Your task to perform on an android device: open sync settings in chrome Image 0: 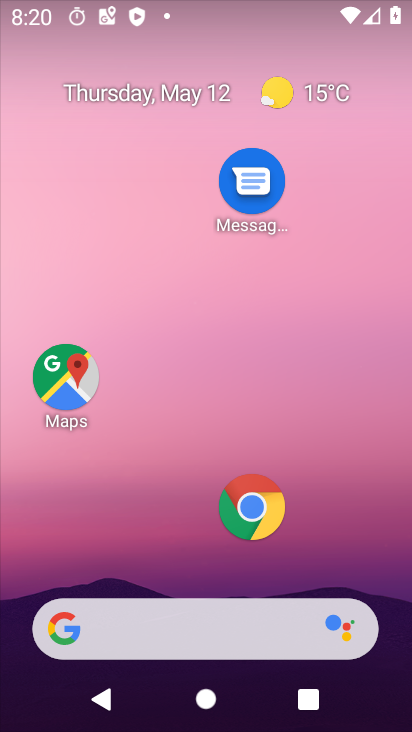
Step 0: click (249, 501)
Your task to perform on an android device: open sync settings in chrome Image 1: 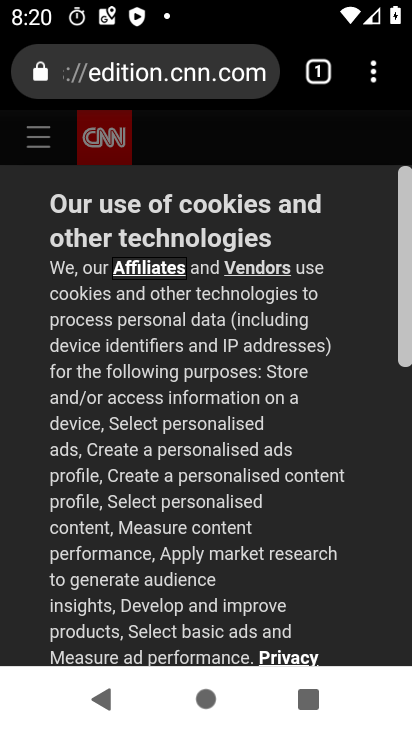
Step 1: click (375, 80)
Your task to perform on an android device: open sync settings in chrome Image 2: 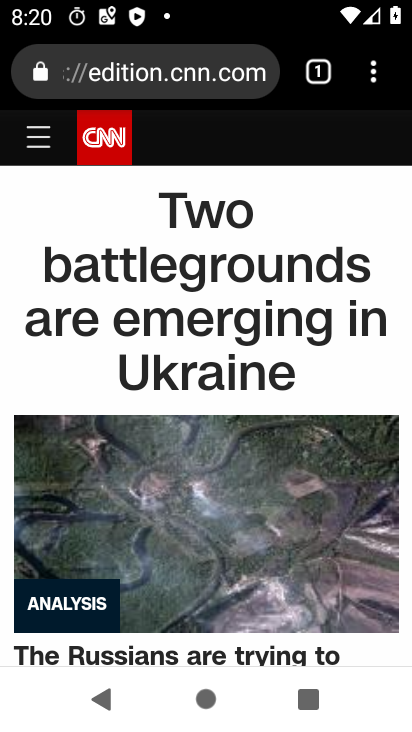
Step 2: click (375, 80)
Your task to perform on an android device: open sync settings in chrome Image 3: 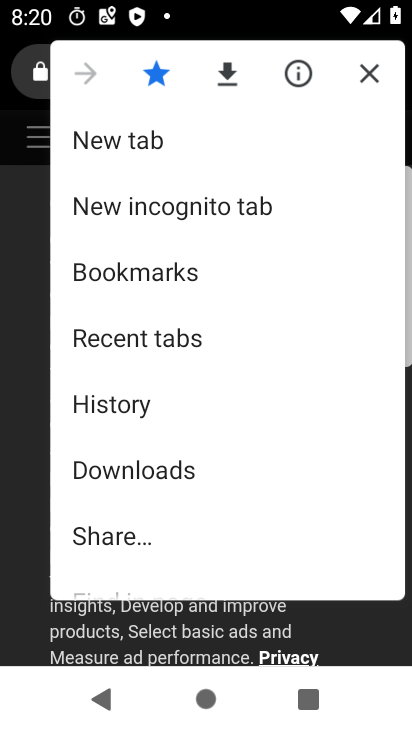
Step 3: drag from (223, 500) to (257, 236)
Your task to perform on an android device: open sync settings in chrome Image 4: 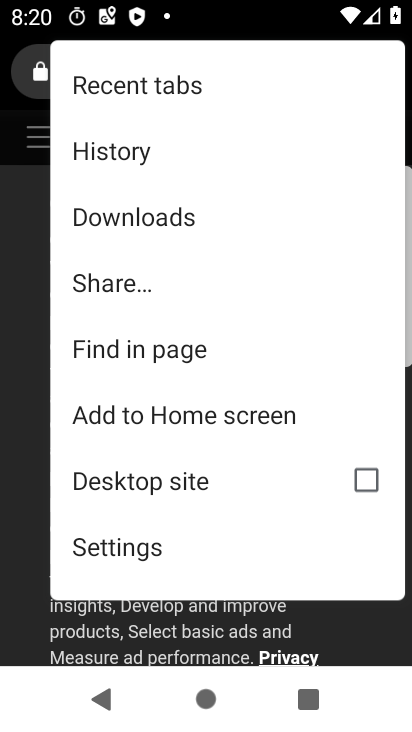
Step 4: click (223, 549)
Your task to perform on an android device: open sync settings in chrome Image 5: 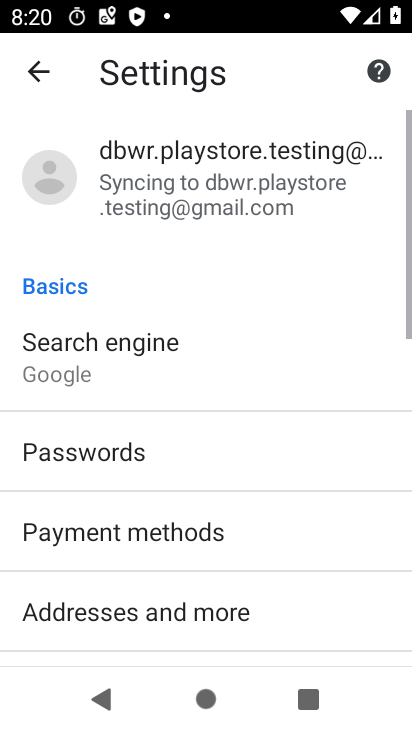
Step 5: drag from (154, 590) to (188, 370)
Your task to perform on an android device: open sync settings in chrome Image 6: 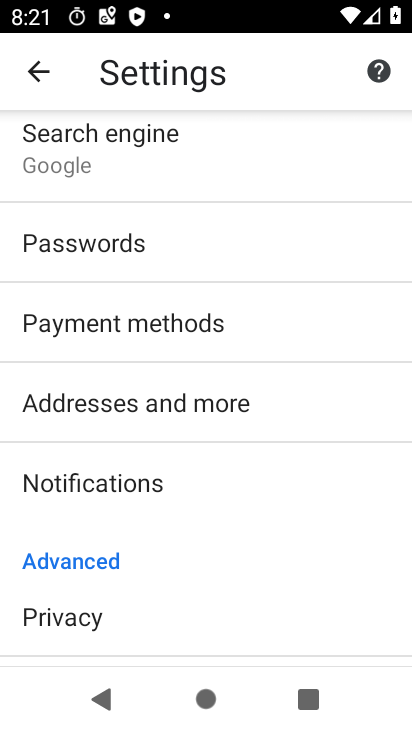
Step 6: drag from (168, 566) to (175, 712)
Your task to perform on an android device: open sync settings in chrome Image 7: 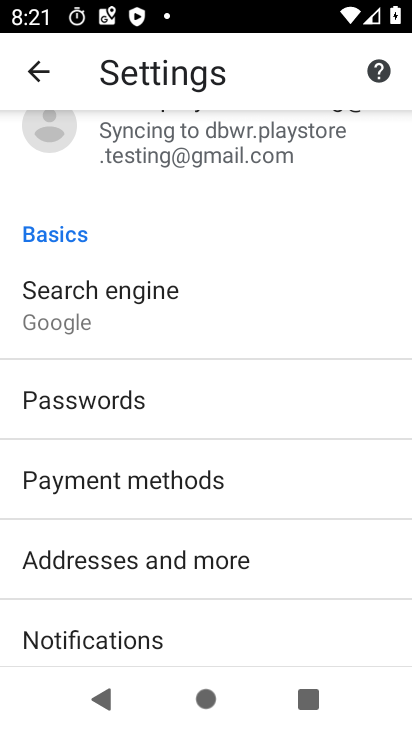
Step 7: click (230, 137)
Your task to perform on an android device: open sync settings in chrome Image 8: 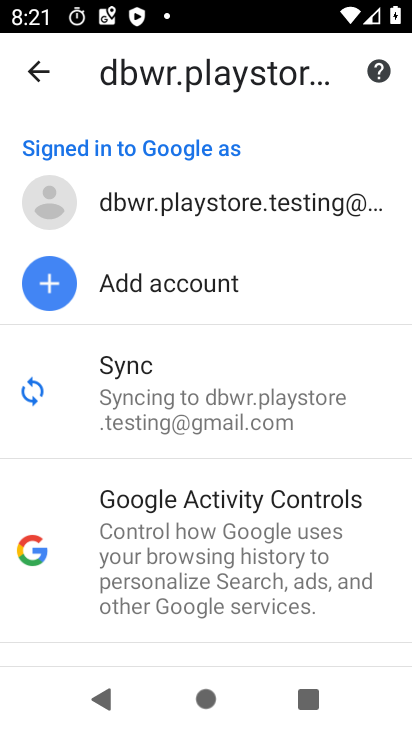
Step 8: click (203, 425)
Your task to perform on an android device: open sync settings in chrome Image 9: 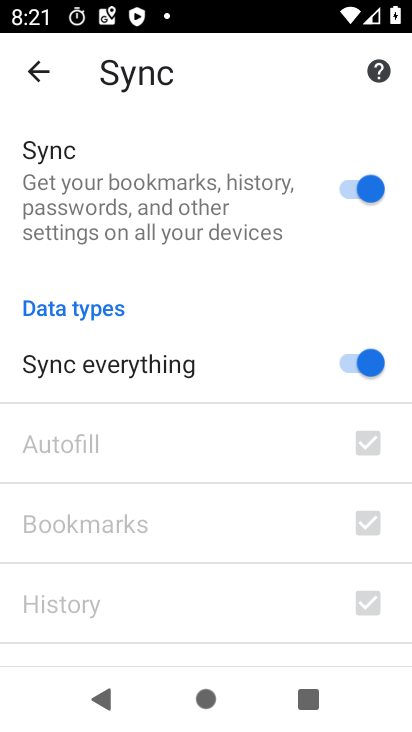
Step 9: task complete